Your task to perform on an android device: move a message to another label in the gmail app Image 0: 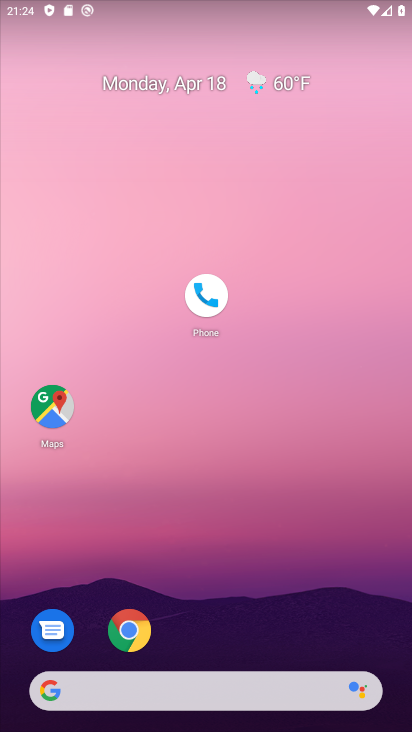
Step 0: drag from (333, 605) to (297, 125)
Your task to perform on an android device: move a message to another label in the gmail app Image 1: 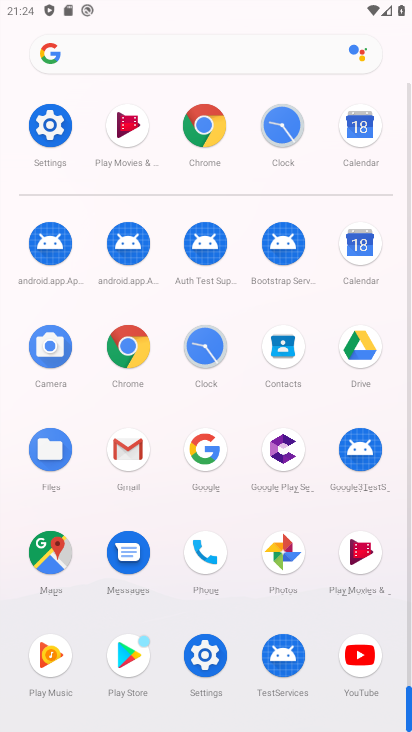
Step 1: click (130, 456)
Your task to perform on an android device: move a message to another label in the gmail app Image 2: 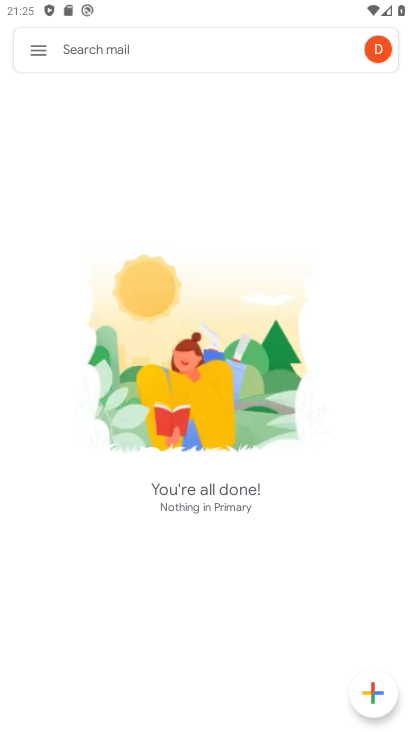
Step 2: click (28, 55)
Your task to perform on an android device: move a message to another label in the gmail app Image 3: 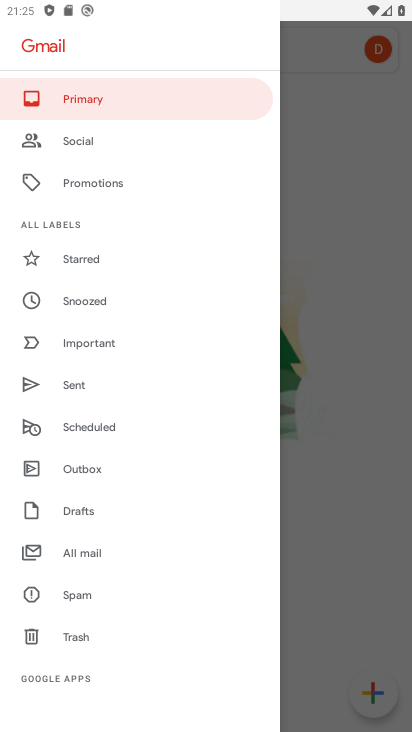
Step 3: click (78, 554)
Your task to perform on an android device: move a message to another label in the gmail app Image 4: 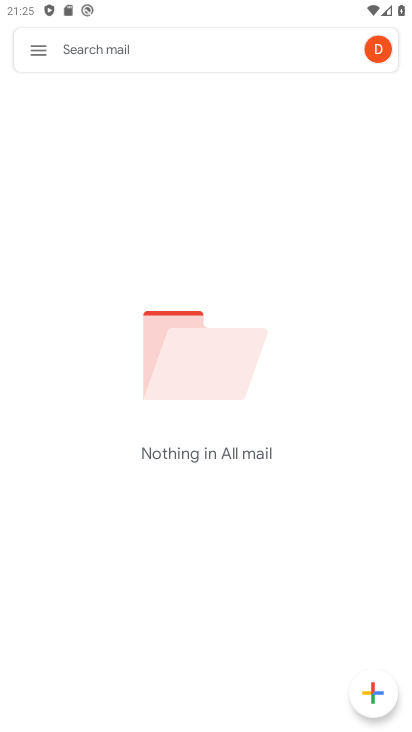
Step 4: task complete